Your task to perform on an android device: turn off translation in the chrome app Image 0: 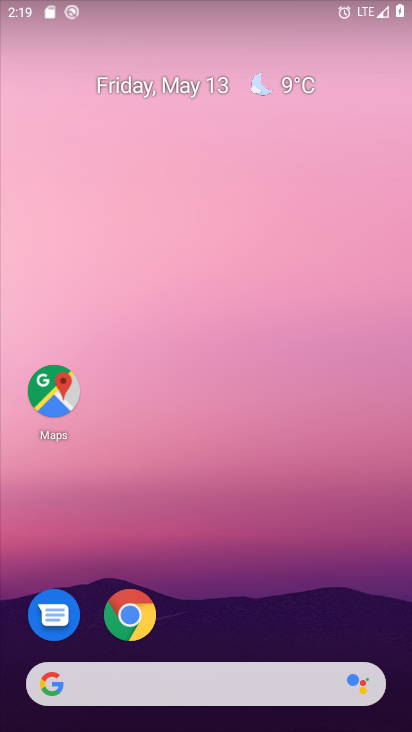
Step 0: click (142, 614)
Your task to perform on an android device: turn off translation in the chrome app Image 1: 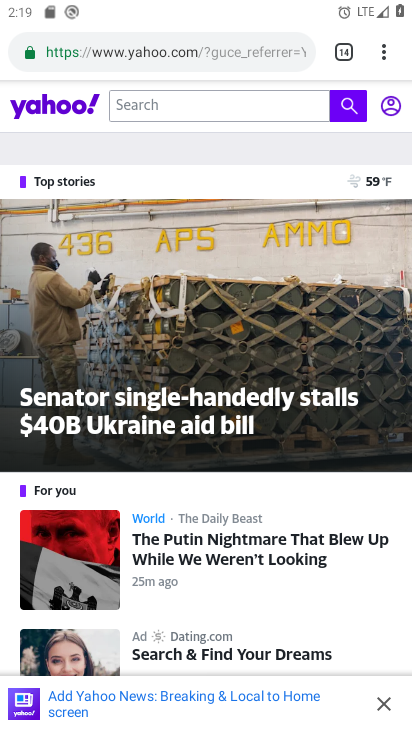
Step 1: click (381, 50)
Your task to perform on an android device: turn off translation in the chrome app Image 2: 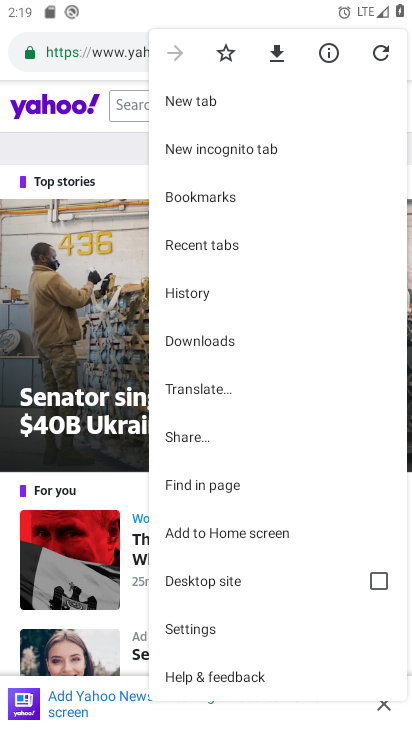
Step 2: click (179, 621)
Your task to perform on an android device: turn off translation in the chrome app Image 3: 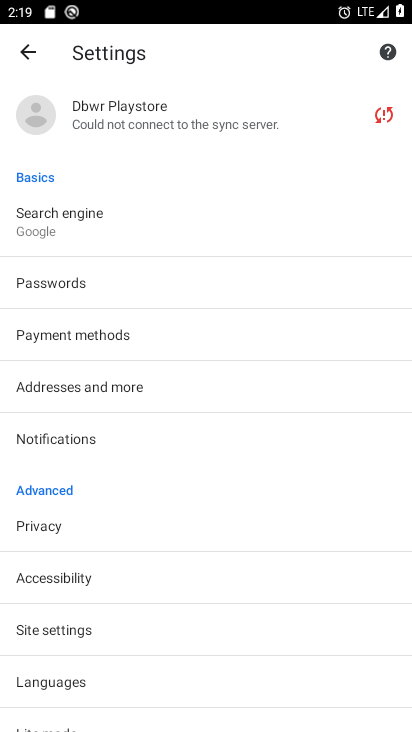
Step 3: click (168, 685)
Your task to perform on an android device: turn off translation in the chrome app Image 4: 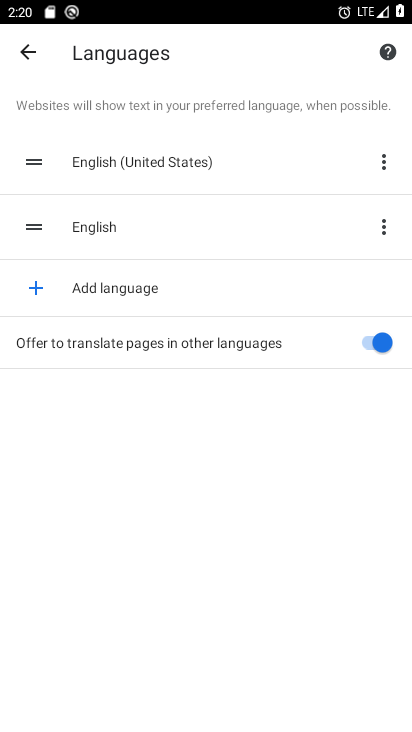
Step 4: click (372, 334)
Your task to perform on an android device: turn off translation in the chrome app Image 5: 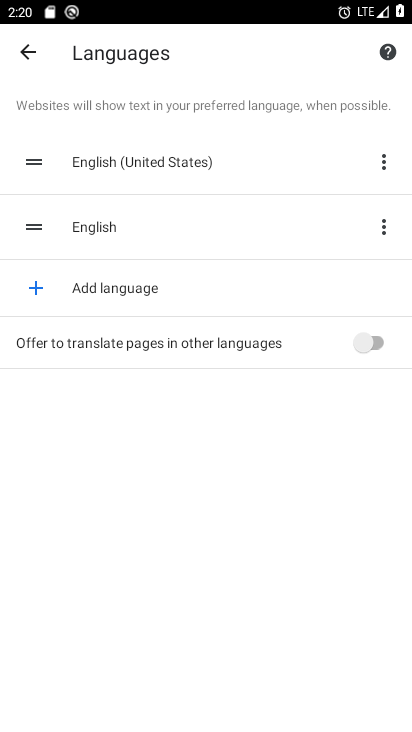
Step 5: task complete